Your task to perform on an android device: Do I have any events tomorrow? Image 0: 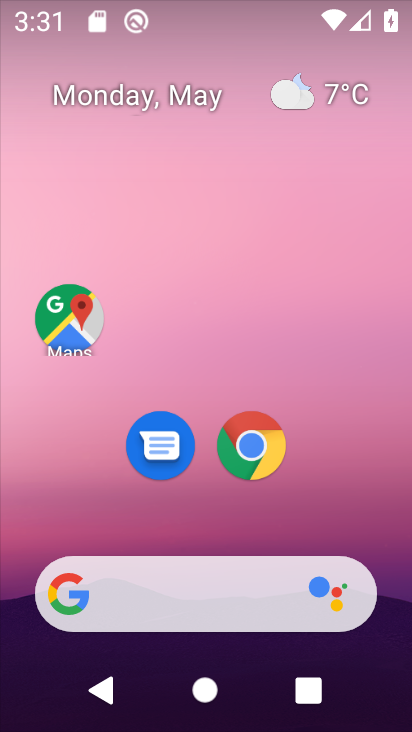
Step 0: drag from (315, 507) to (254, 160)
Your task to perform on an android device: Do I have any events tomorrow? Image 1: 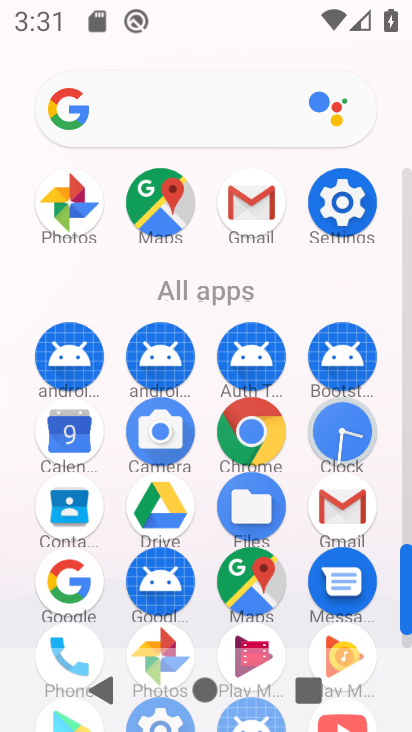
Step 1: click (64, 421)
Your task to perform on an android device: Do I have any events tomorrow? Image 2: 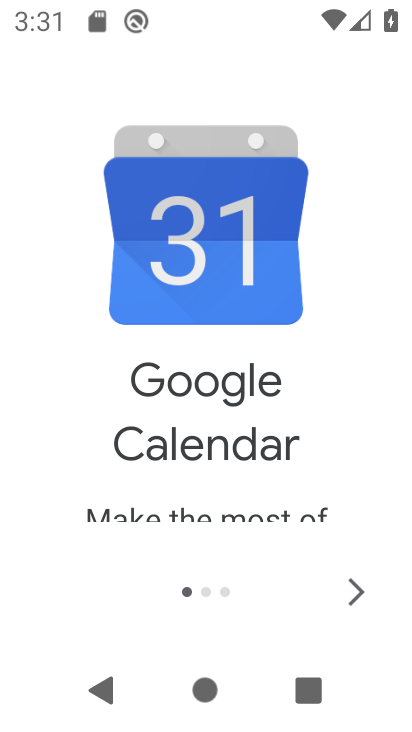
Step 2: click (349, 580)
Your task to perform on an android device: Do I have any events tomorrow? Image 3: 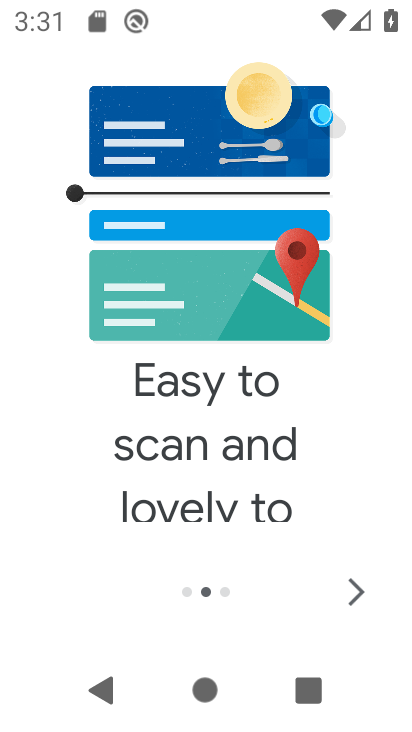
Step 3: click (347, 579)
Your task to perform on an android device: Do I have any events tomorrow? Image 4: 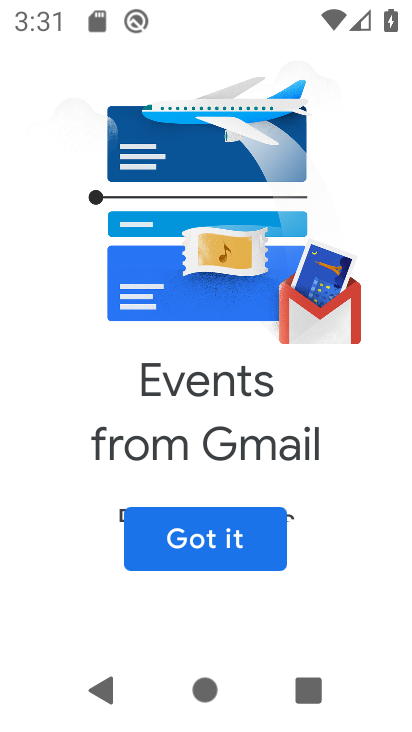
Step 4: click (81, 591)
Your task to perform on an android device: Do I have any events tomorrow? Image 5: 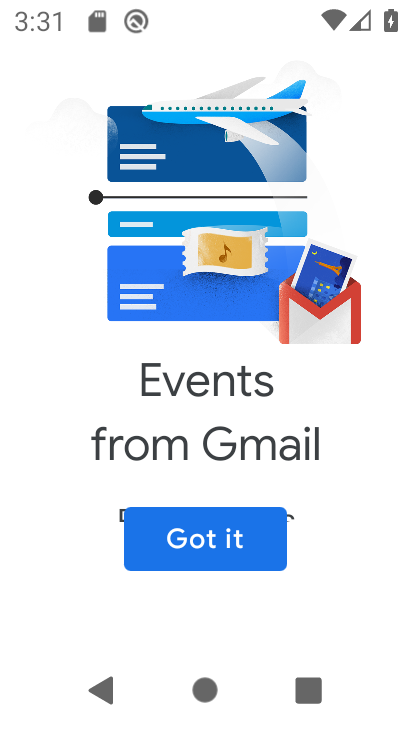
Step 5: click (142, 565)
Your task to perform on an android device: Do I have any events tomorrow? Image 6: 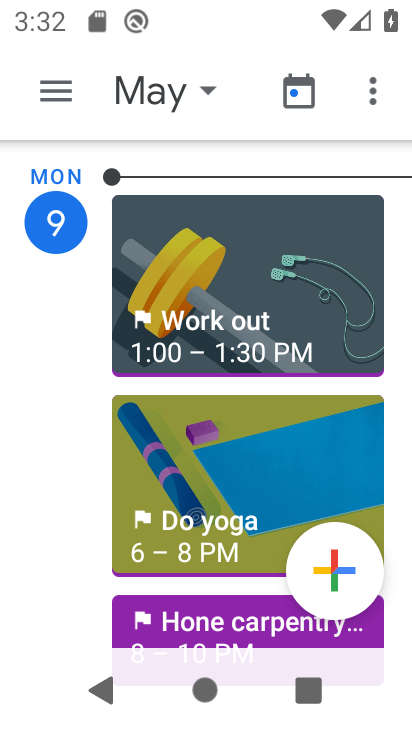
Step 6: click (145, 98)
Your task to perform on an android device: Do I have any events tomorrow? Image 7: 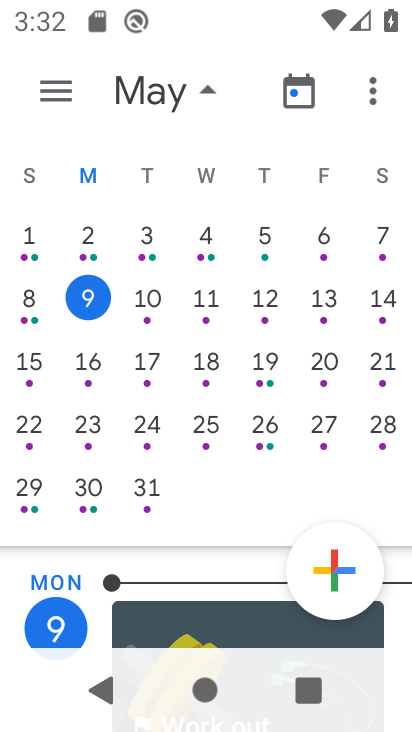
Step 7: click (154, 297)
Your task to perform on an android device: Do I have any events tomorrow? Image 8: 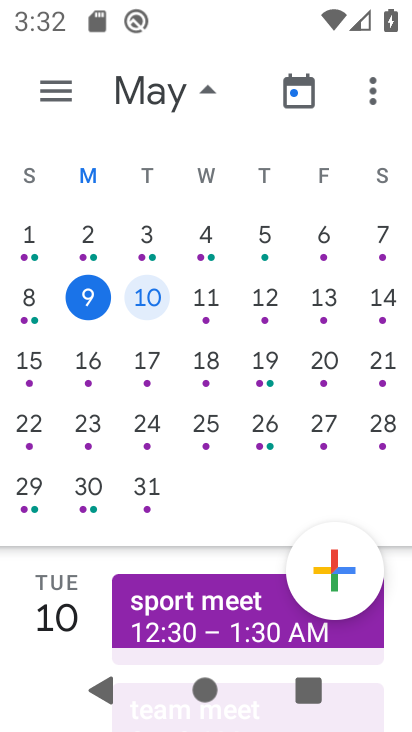
Step 8: task complete